Your task to perform on an android device: move a message to another label in the gmail app Image 0: 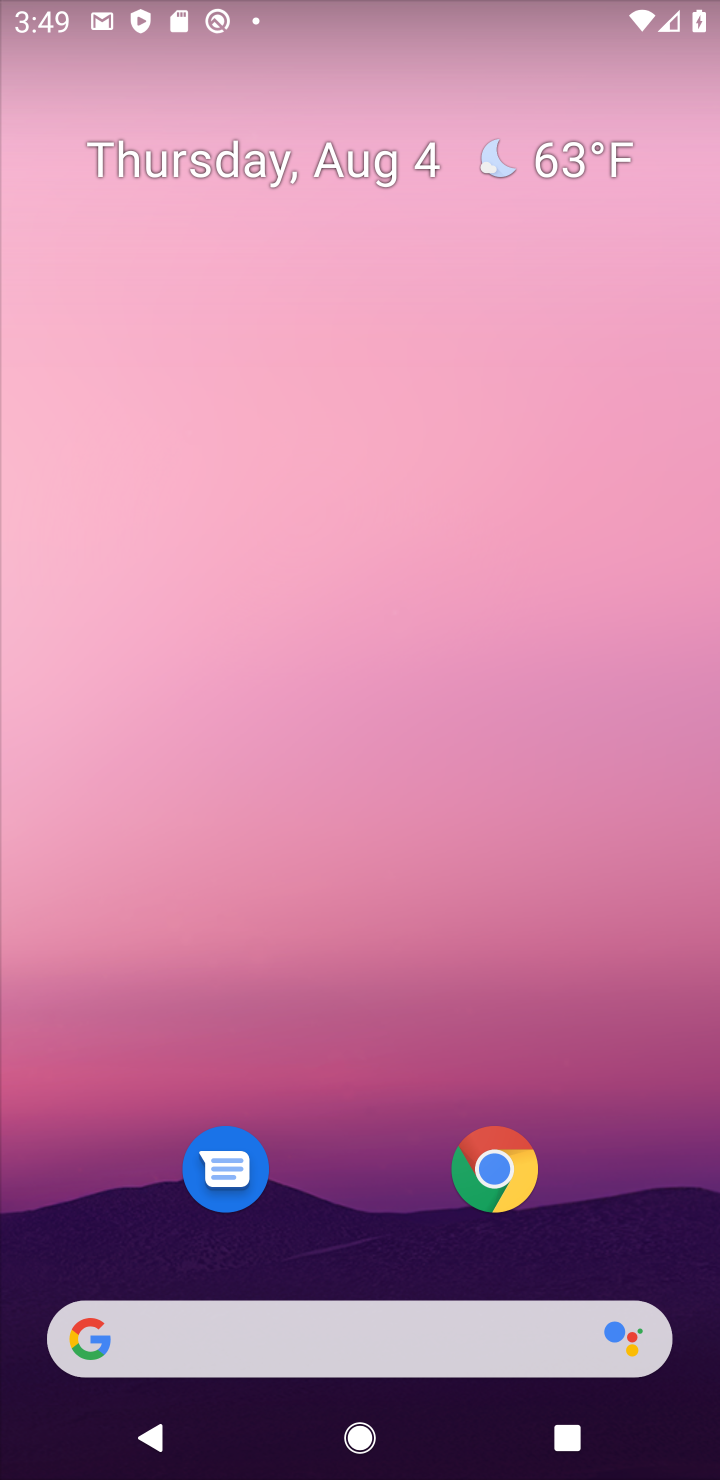
Step 0: drag from (327, 1210) to (343, 366)
Your task to perform on an android device: move a message to another label in the gmail app Image 1: 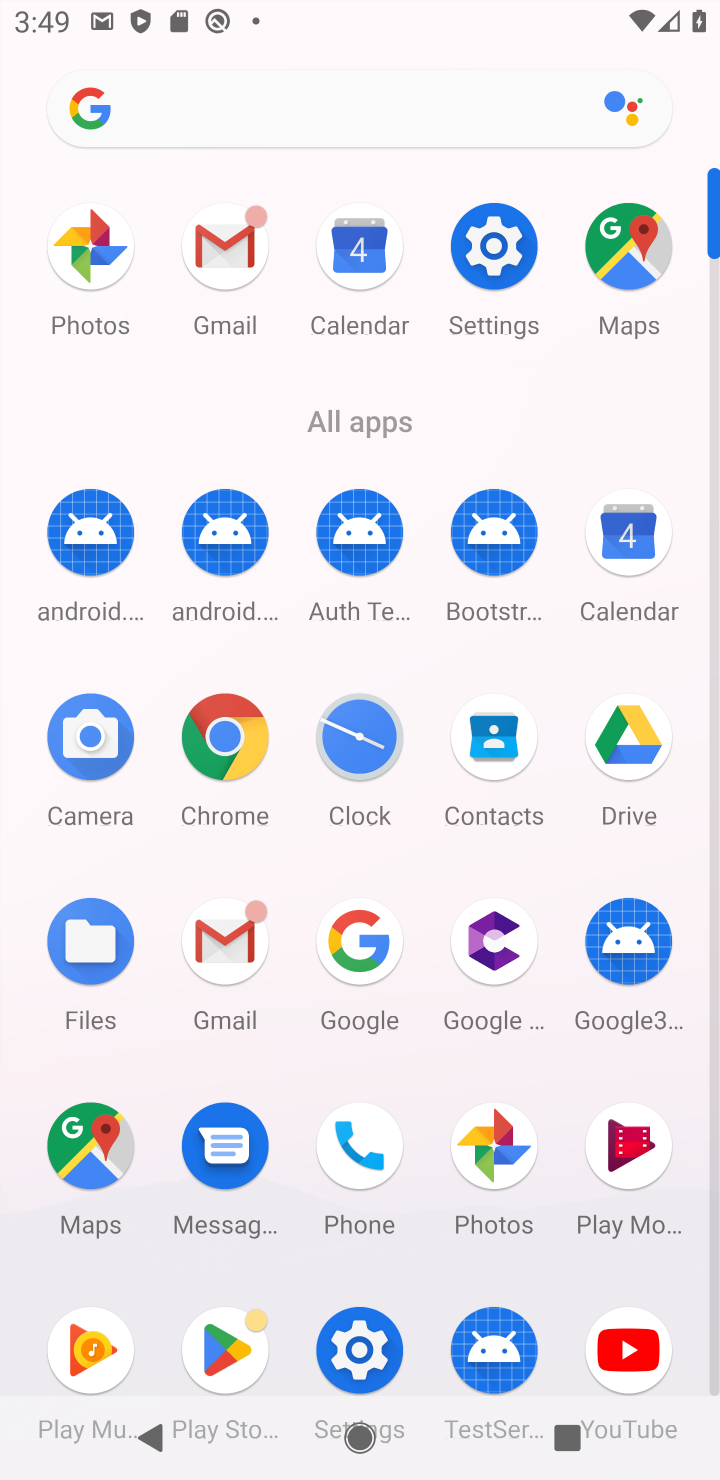
Step 1: click (249, 955)
Your task to perform on an android device: move a message to another label in the gmail app Image 2: 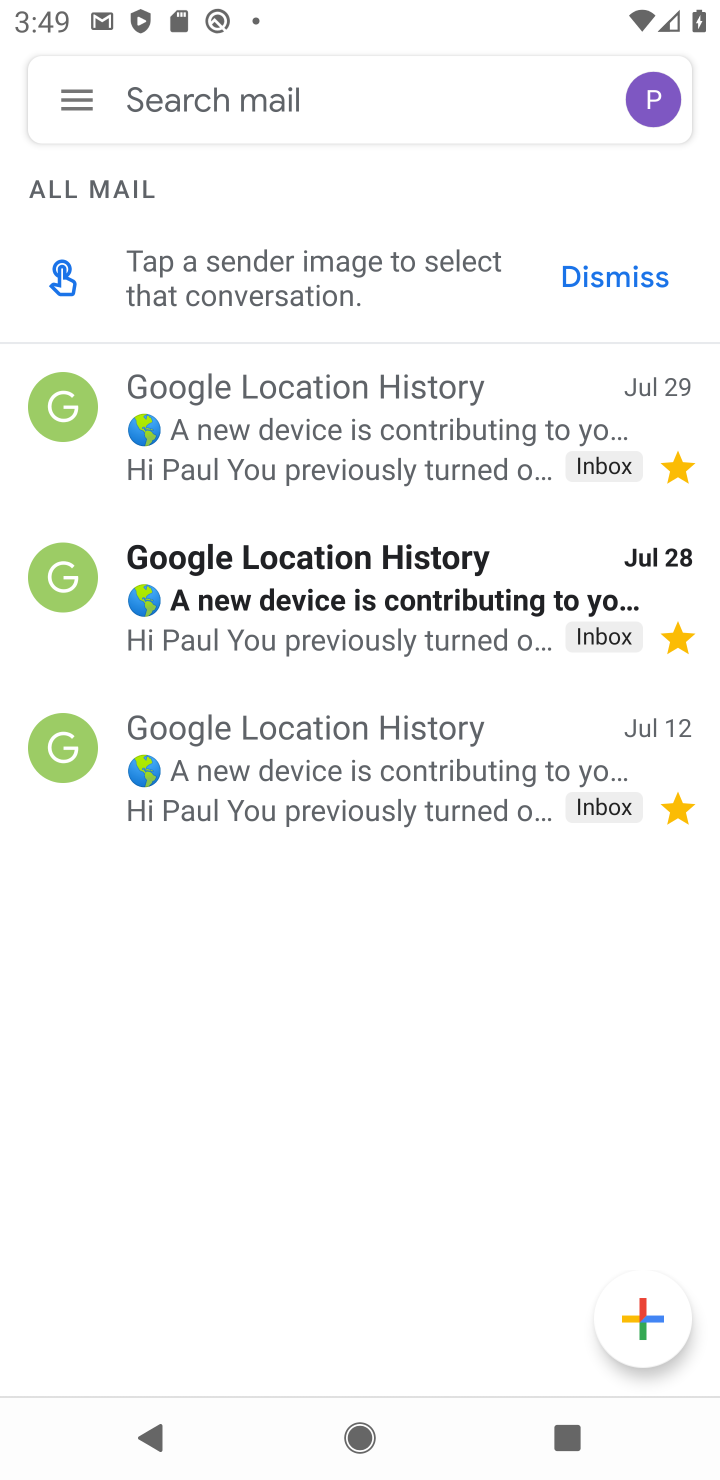
Step 2: click (81, 414)
Your task to perform on an android device: move a message to another label in the gmail app Image 3: 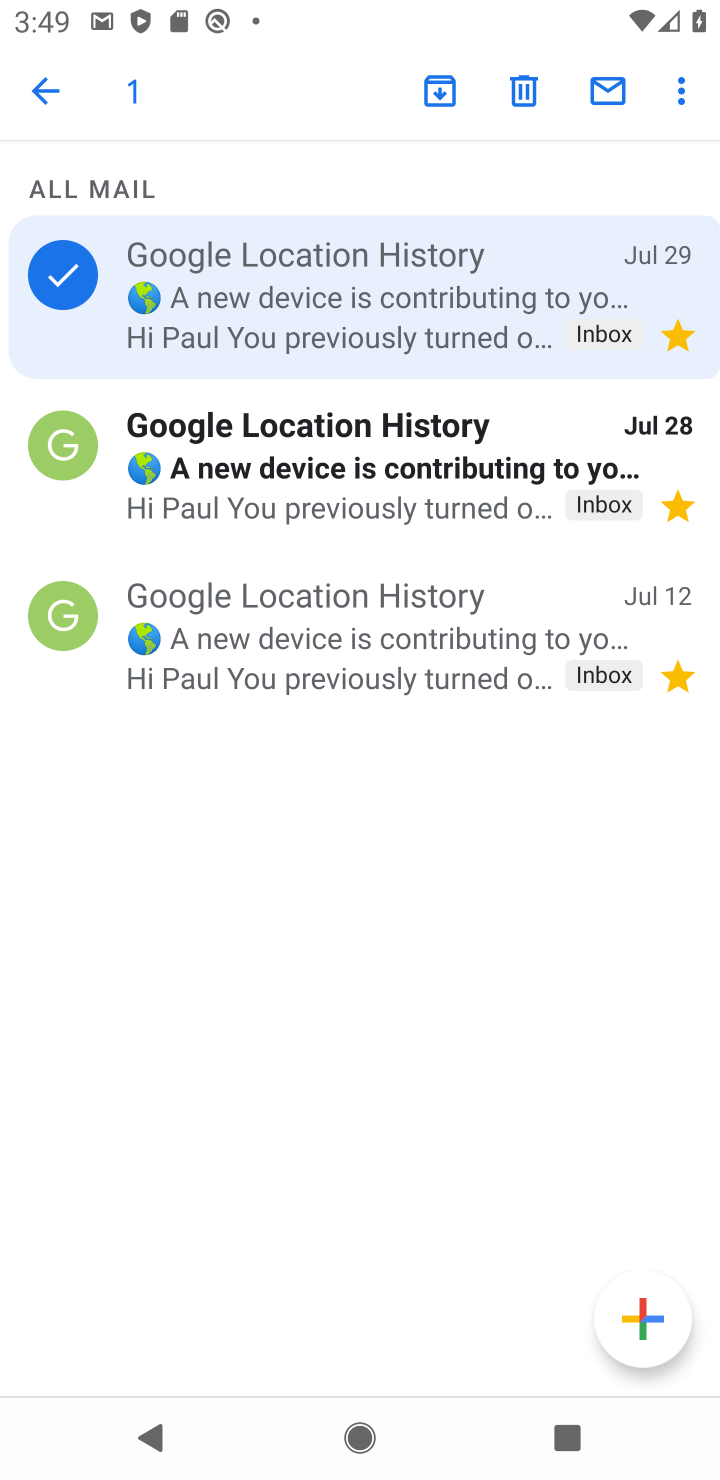
Step 3: click (671, 94)
Your task to perform on an android device: move a message to another label in the gmail app Image 4: 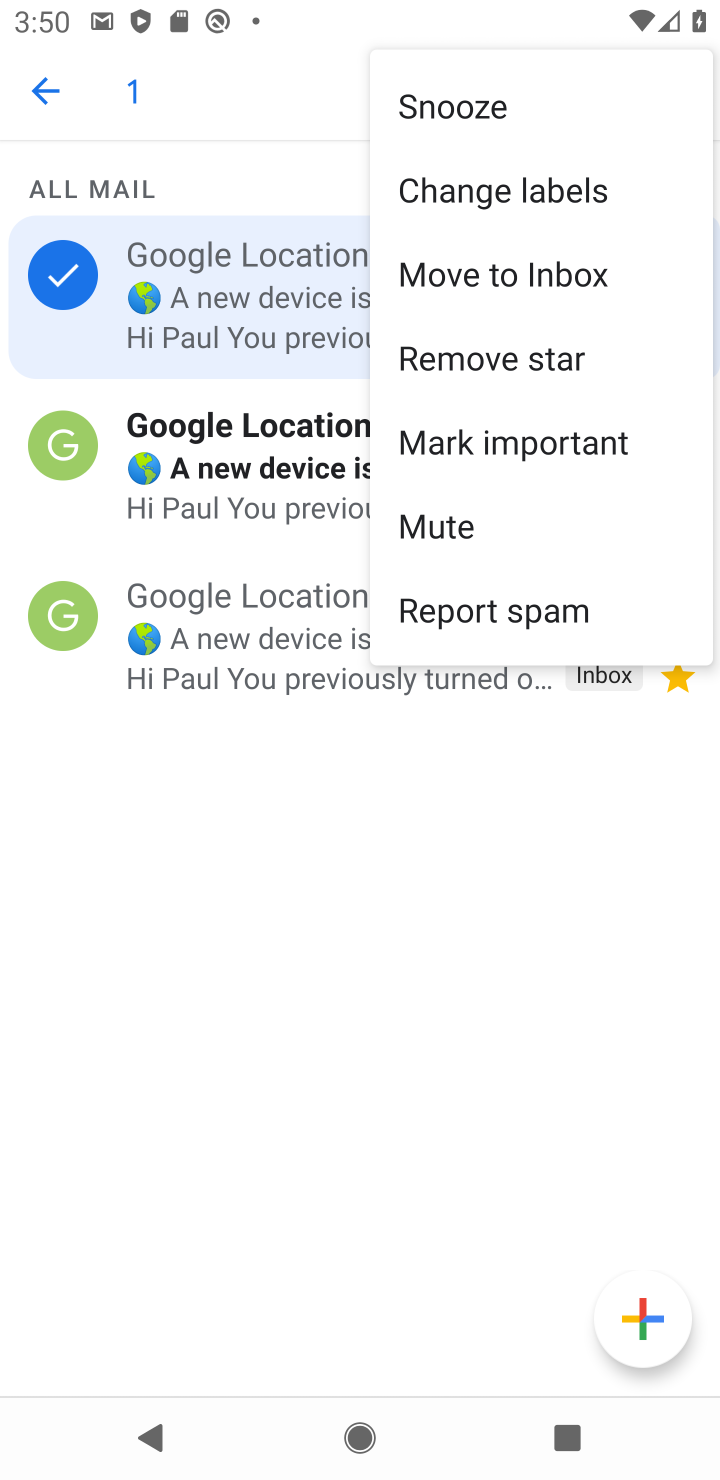
Step 4: click (535, 275)
Your task to perform on an android device: move a message to another label in the gmail app Image 5: 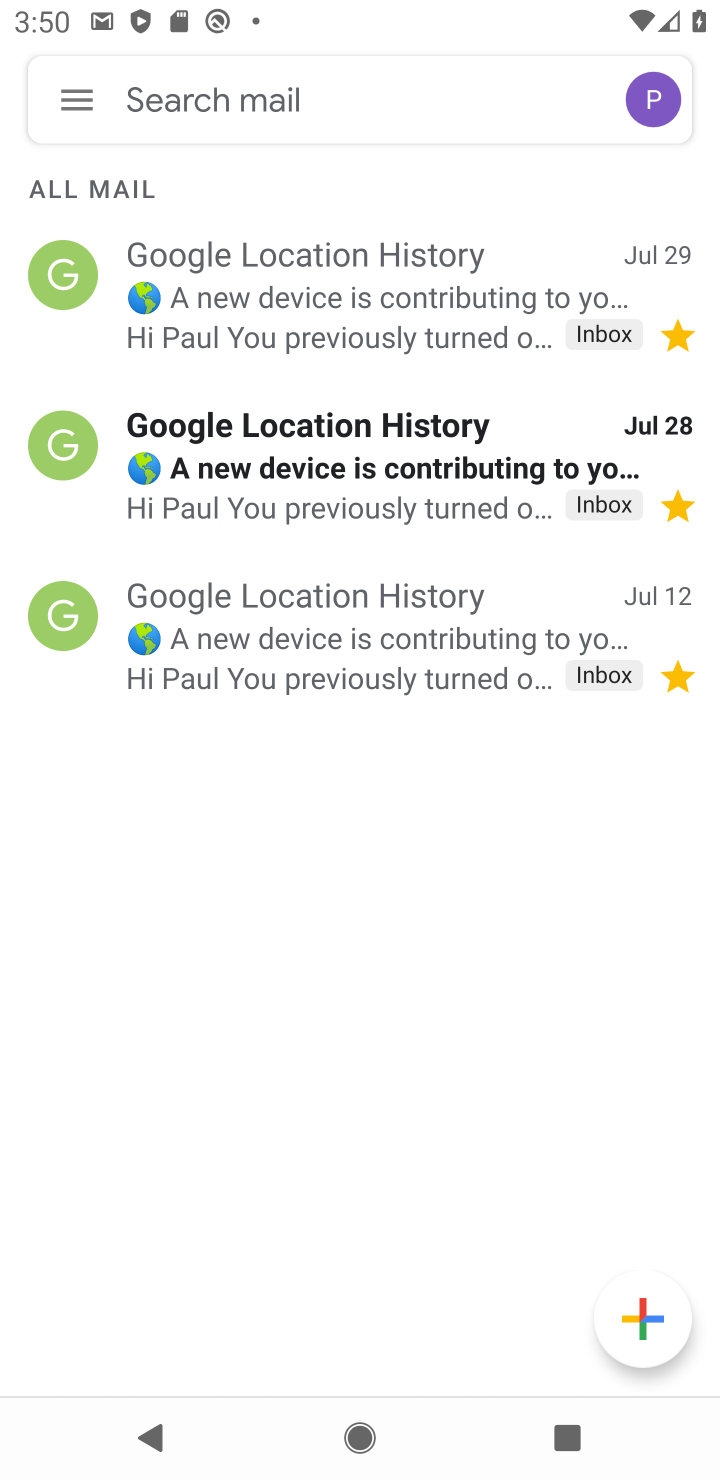
Step 5: task complete